Your task to perform on an android device: check data usage Image 0: 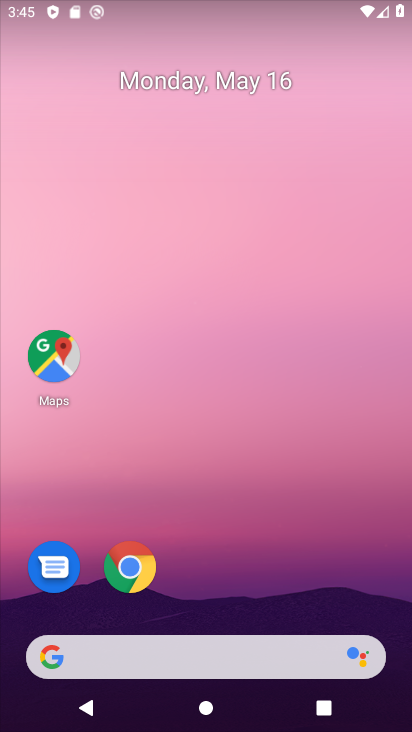
Step 0: drag from (255, 627) to (294, 6)
Your task to perform on an android device: check data usage Image 1: 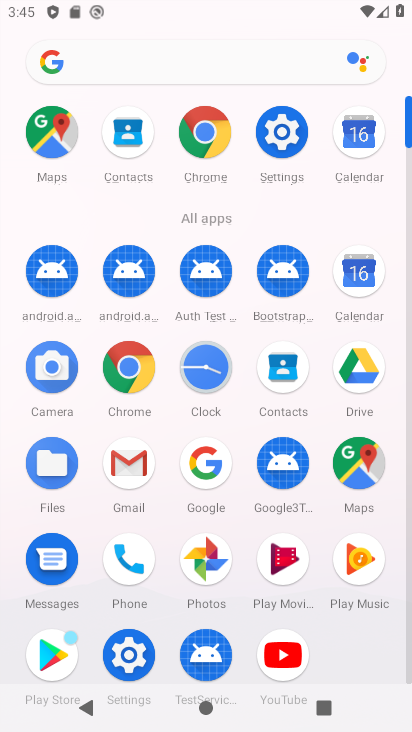
Step 1: click (285, 128)
Your task to perform on an android device: check data usage Image 2: 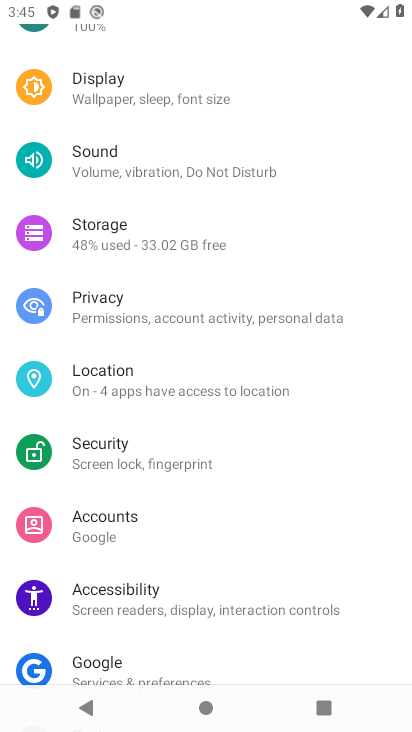
Step 2: drag from (221, 139) to (218, 715)
Your task to perform on an android device: check data usage Image 3: 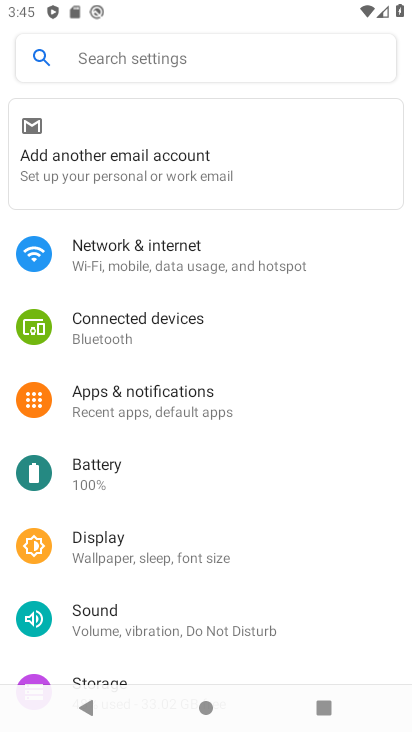
Step 3: click (216, 266)
Your task to perform on an android device: check data usage Image 4: 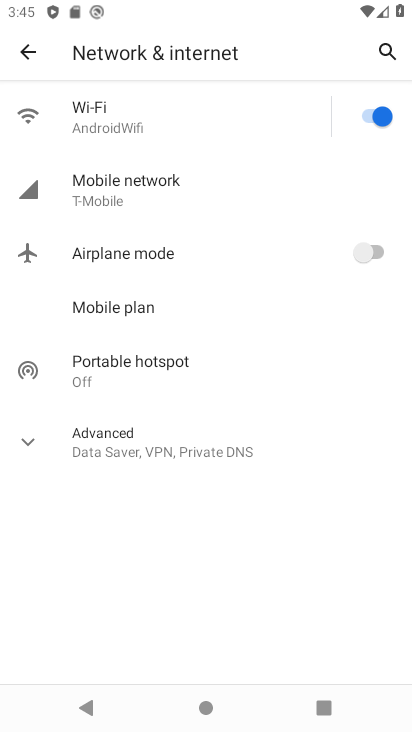
Step 4: click (154, 181)
Your task to perform on an android device: check data usage Image 5: 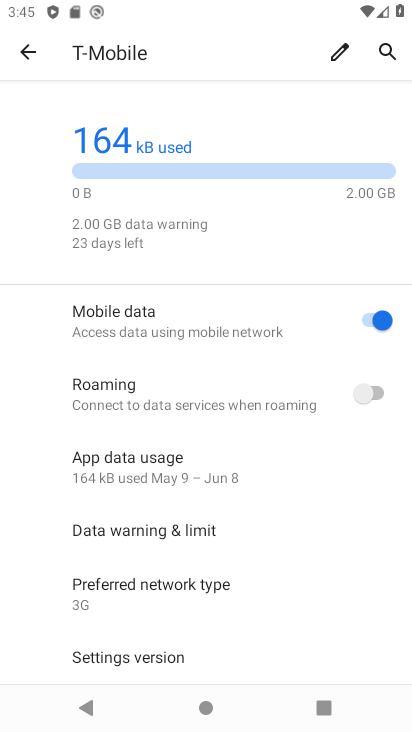
Step 5: task complete